Your task to perform on an android device: What's the weather going to be this weekend? Image 0: 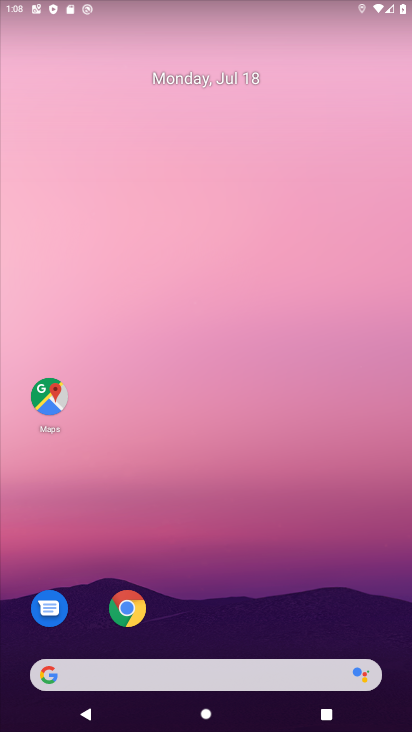
Step 0: drag from (319, 633) to (252, 35)
Your task to perform on an android device: What's the weather going to be this weekend? Image 1: 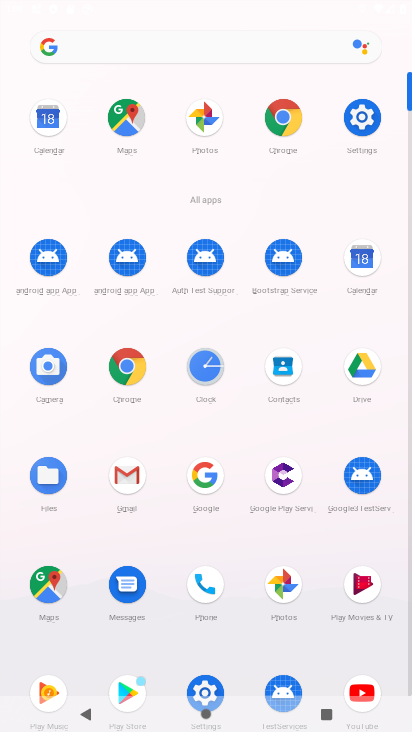
Step 1: click (361, 257)
Your task to perform on an android device: What's the weather going to be this weekend? Image 2: 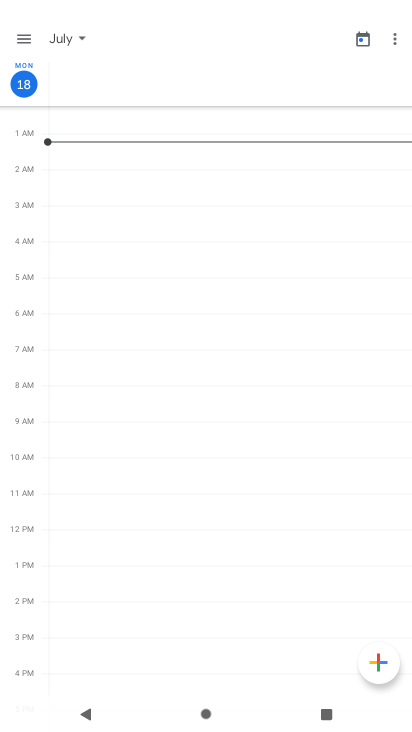
Step 2: press home button
Your task to perform on an android device: What's the weather going to be this weekend? Image 3: 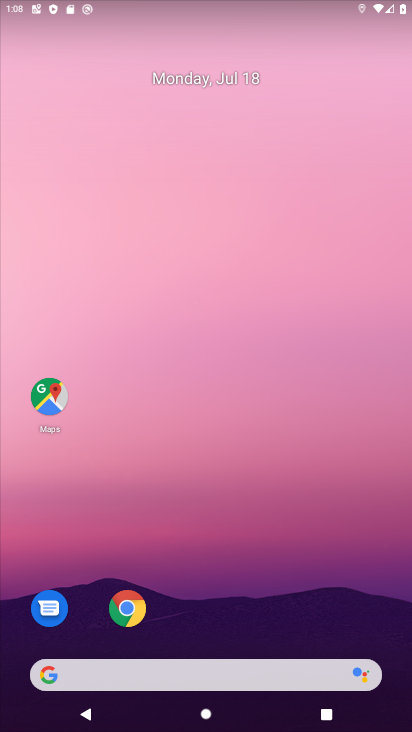
Step 3: click (133, 614)
Your task to perform on an android device: What's the weather going to be this weekend? Image 4: 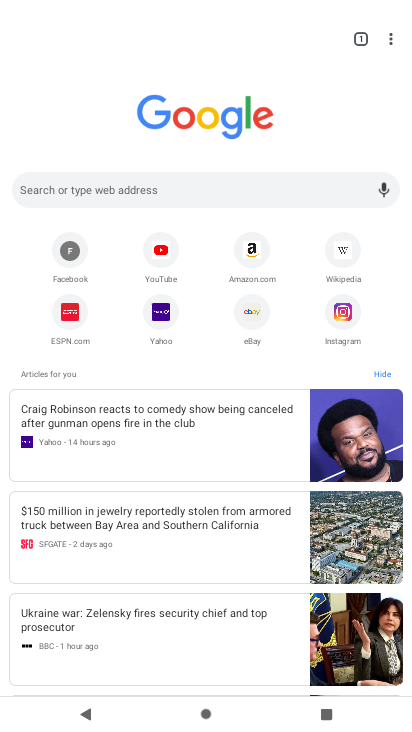
Step 4: click (200, 196)
Your task to perform on an android device: What's the weather going to be this weekend? Image 5: 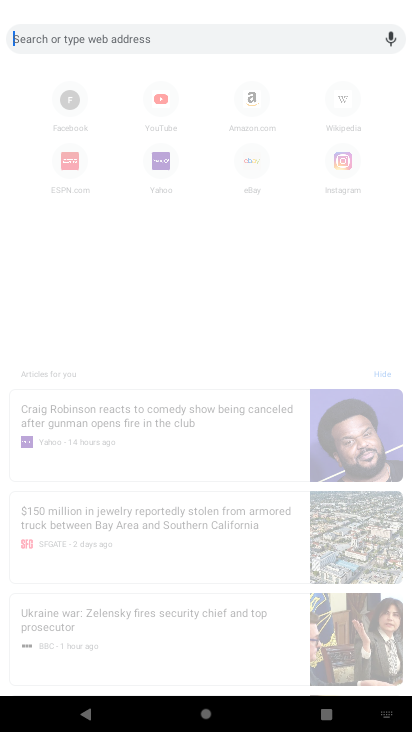
Step 5: type "What's the weather going to be this weekend?"
Your task to perform on an android device: What's the weather going to be this weekend? Image 6: 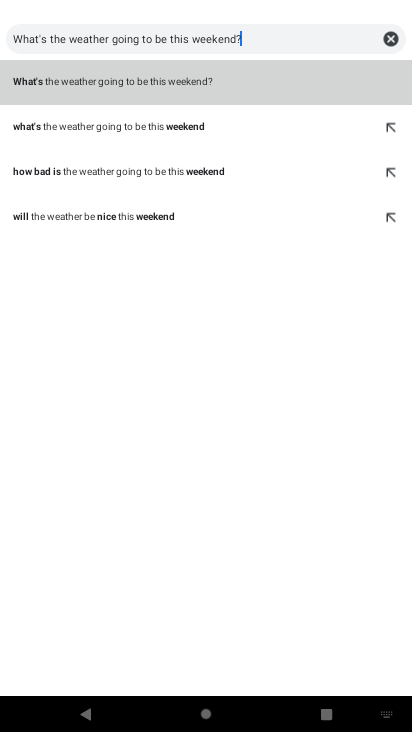
Step 6: click (243, 69)
Your task to perform on an android device: What's the weather going to be this weekend? Image 7: 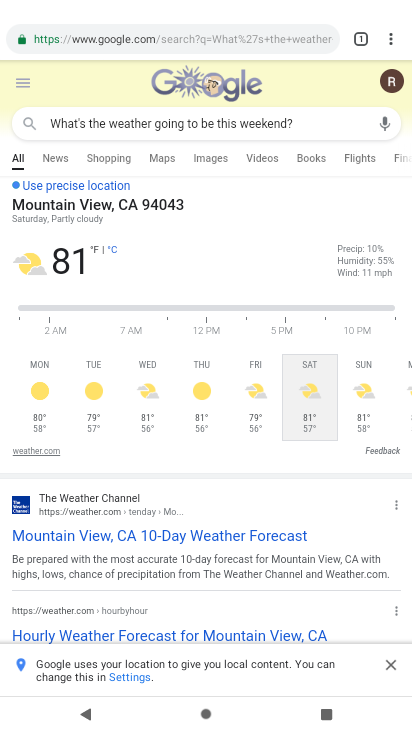
Step 7: task complete